Your task to perform on an android device: remove spam from my inbox in the gmail app Image 0: 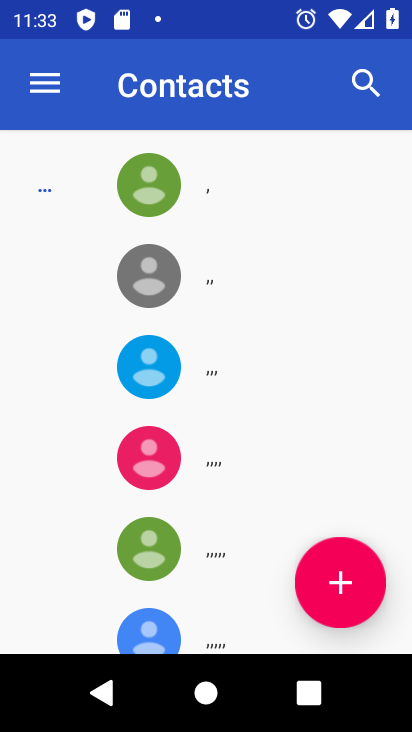
Step 0: press home button
Your task to perform on an android device: remove spam from my inbox in the gmail app Image 1: 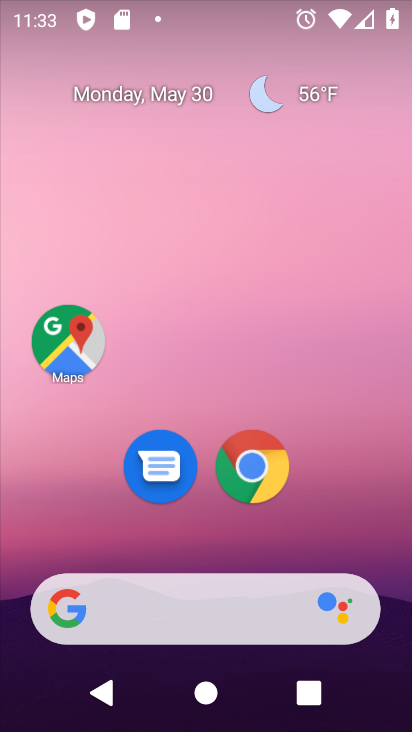
Step 1: drag from (182, 599) to (129, 29)
Your task to perform on an android device: remove spam from my inbox in the gmail app Image 2: 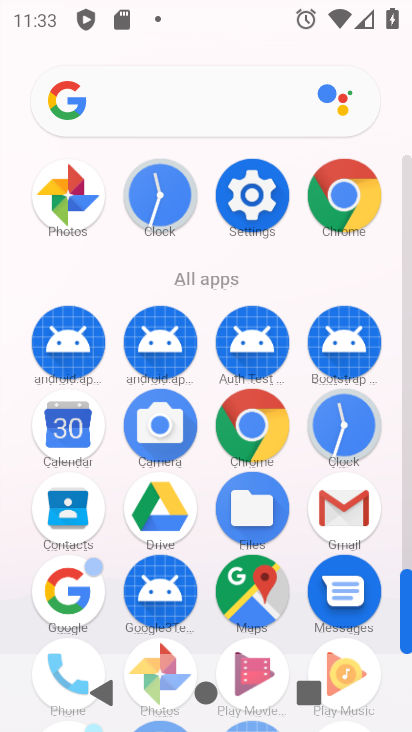
Step 2: click (318, 511)
Your task to perform on an android device: remove spam from my inbox in the gmail app Image 3: 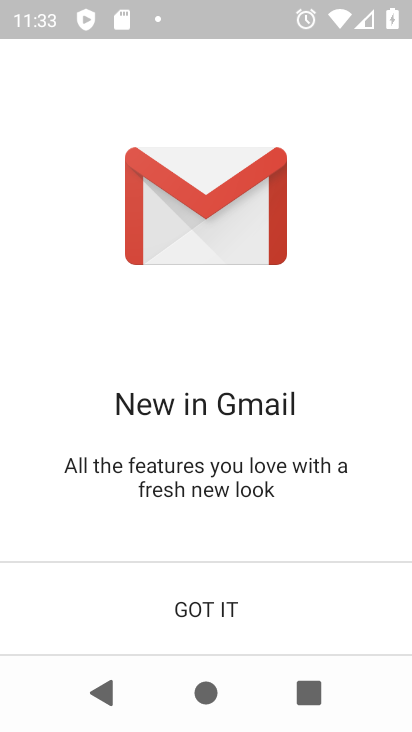
Step 3: click (177, 618)
Your task to perform on an android device: remove spam from my inbox in the gmail app Image 4: 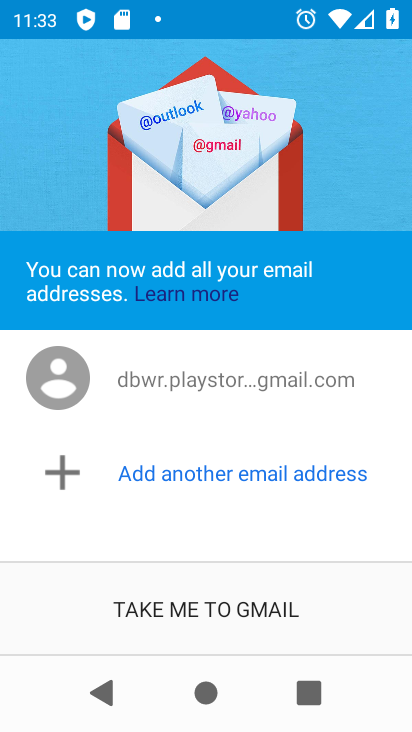
Step 4: click (205, 607)
Your task to perform on an android device: remove spam from my inbox in the gmail app Image 5: 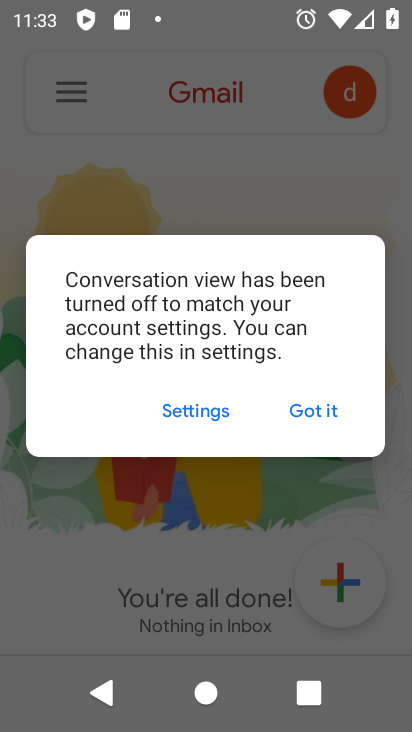
Step 5: click (318, 406)
Your task to perform on an android device: remove spam from my inbox in the gmail app Image 6: 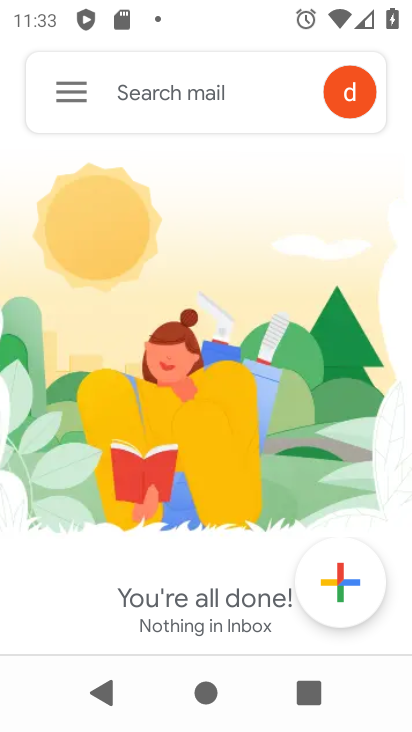
Step 6: click (82, 84)
Your task to perform on an android device: remove spam from my inbox in the gmail app Image 7: 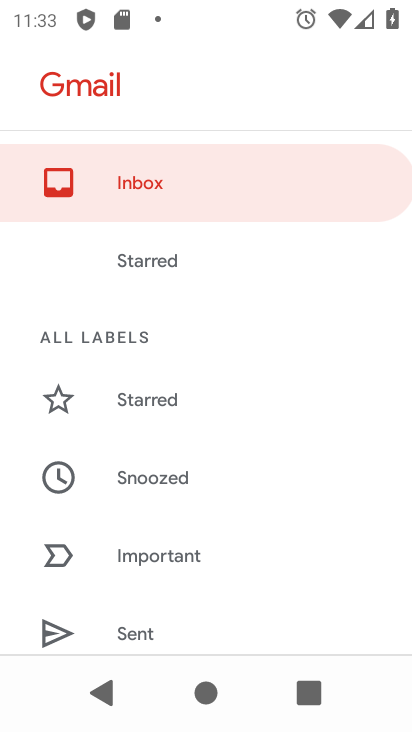
Step 7: drag from (173, 528) to (145, 99)
Your task to perform on an android device: remove spam from my inbox in the gmail app Image 8: 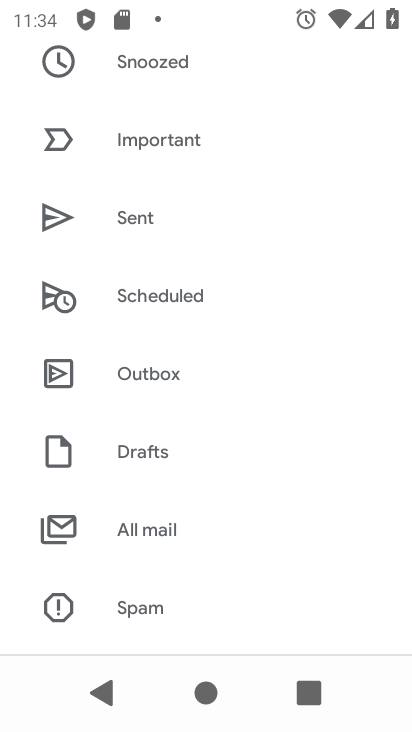
Step 8: drag from (143, 135) to (169, 469)
Your task to perform on an android device: remove spam from my inbox in the gmail app Image 9: 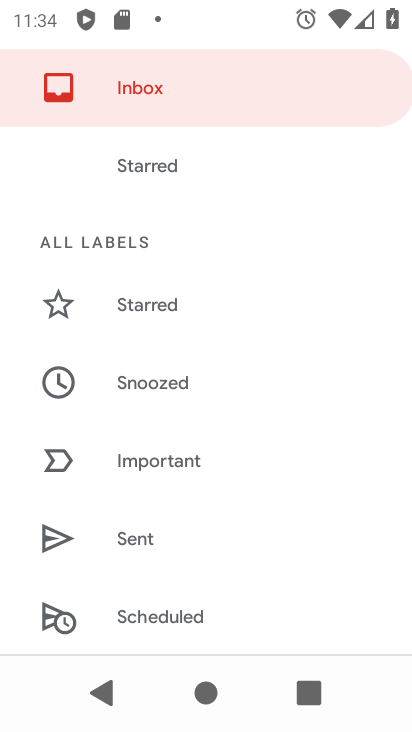
Step 9: drag from (163, 524) to (132, 13)
Your task to perform on an android device: remove spam from my inbox in the gmail app Image 10: 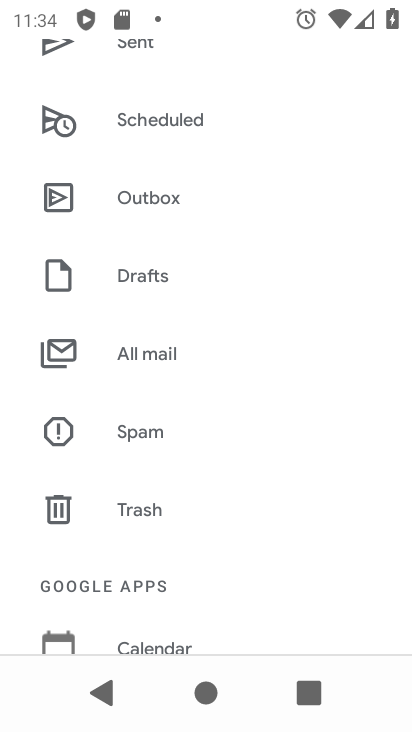
Step 10: click (134, 428)
Your task to perform on an android device: remove spam from my inbox in the gmail app Image 11: 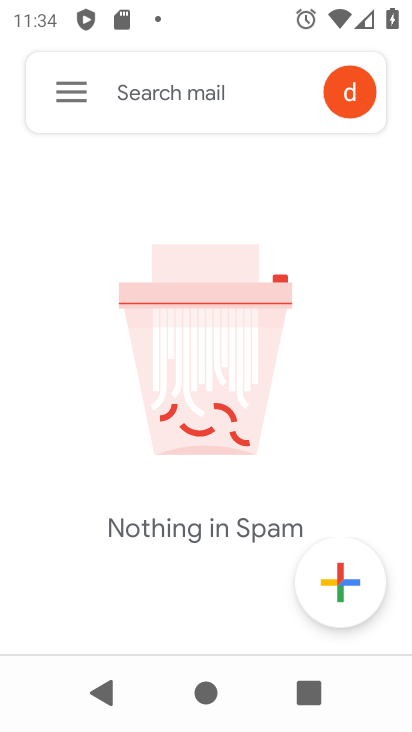
Step 11: task complete